Your task to perform on an android device: empty trash in the gmail app Image 0: 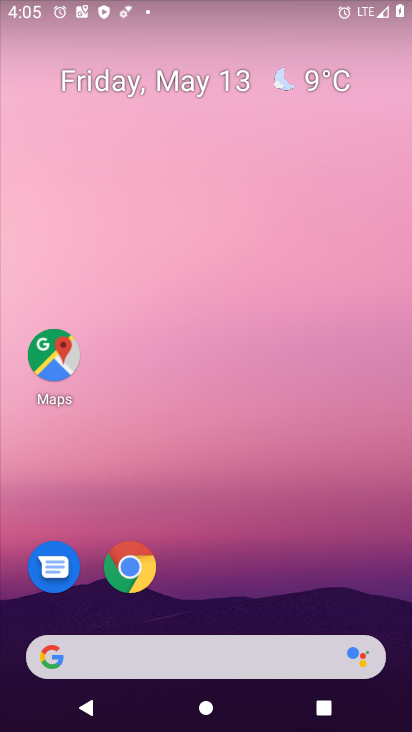
Step 0: drag from (247, 579) to (237, 11)
Your task to perform on an android device: empty trash in the gmail app Image 1: 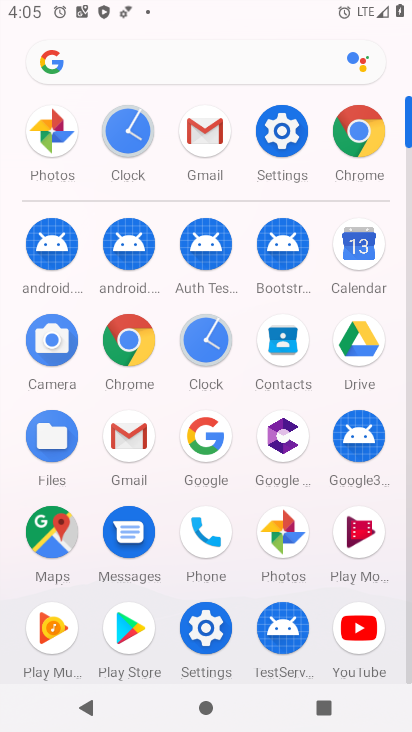
Step 1: click (207, 143)
Your task to perform on an android device: empty trash in the gmail app Image 2: 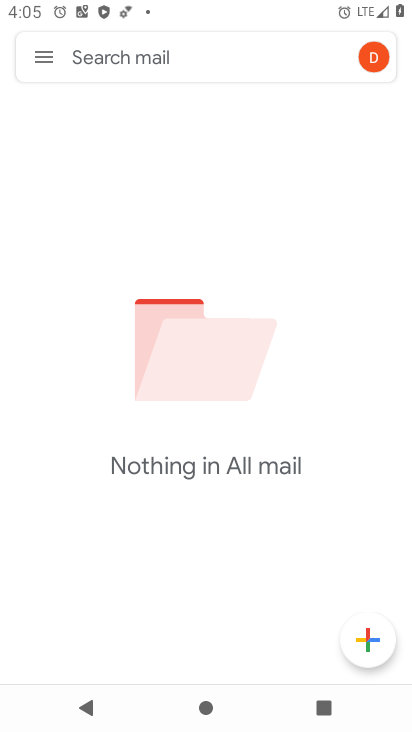
Step 2: click (35, 57)
Your task to perform on an android device: empty trash in the gmail app Image 3: 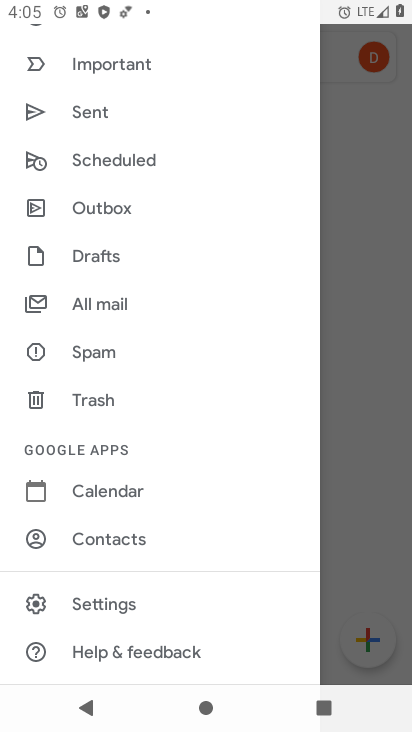
Step 3: click (70, 397)
Your task to perform on an android device: empty trash in the gmail app Image 4: 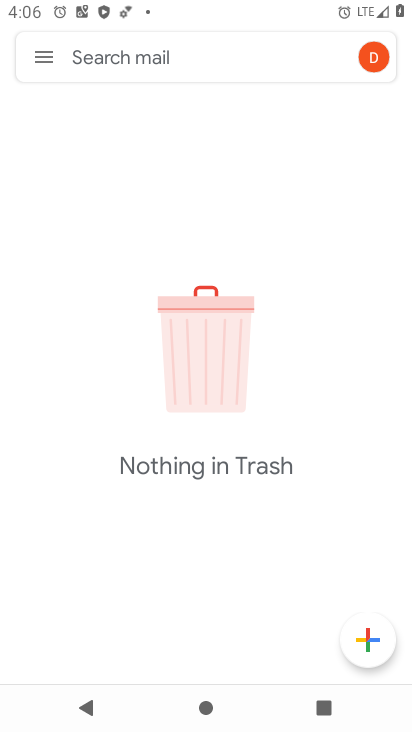
Step 4: task complete